Your task to perform on an android device: turn on airplane mode Image 0: 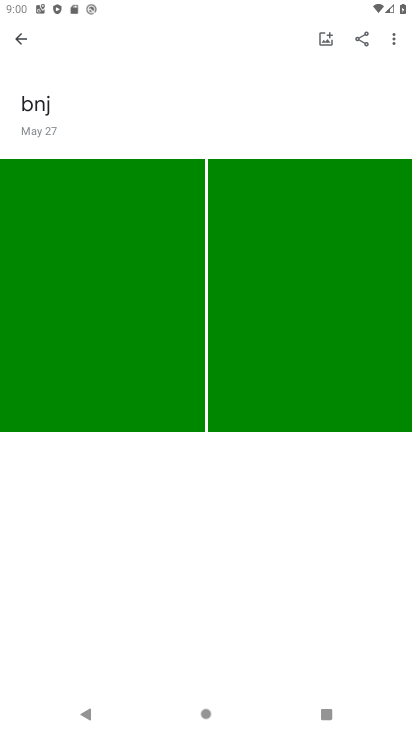
Step 0: press home button
Your task to perform on an android device: turn on airplane mode Image 1: 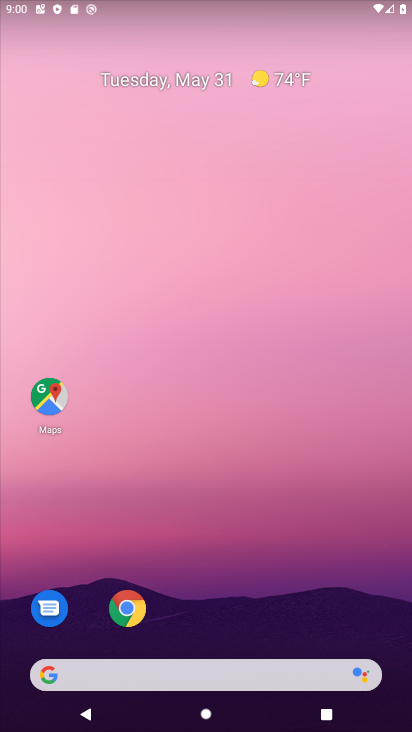
Step 1: drag from (178, 649) to (232, 126)
Your task to perform on an android device: turn on airplane mode Image 2: 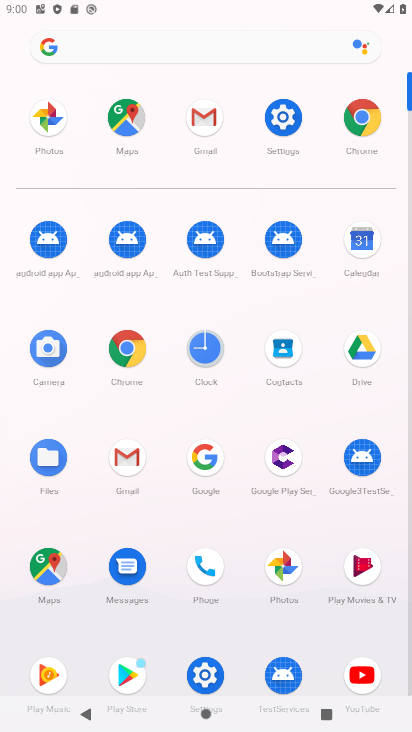
Step 2: click (279, 115)
Your task to perform on an android device: turn on airplane mode Image 3: 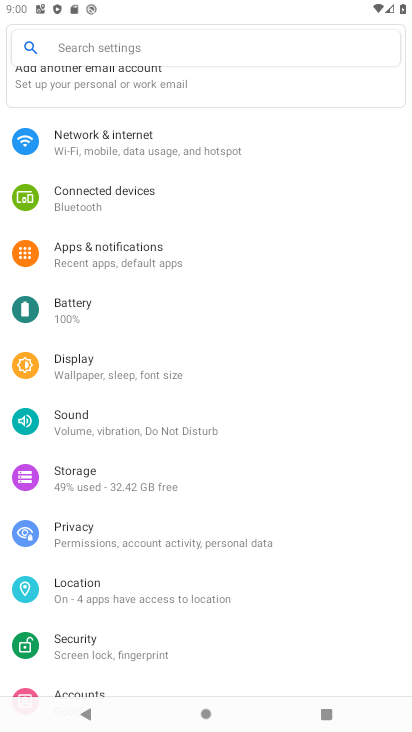
Step 3: click (196, 136)
Your task to perform on an android device: turn on airplane mode Image 4: 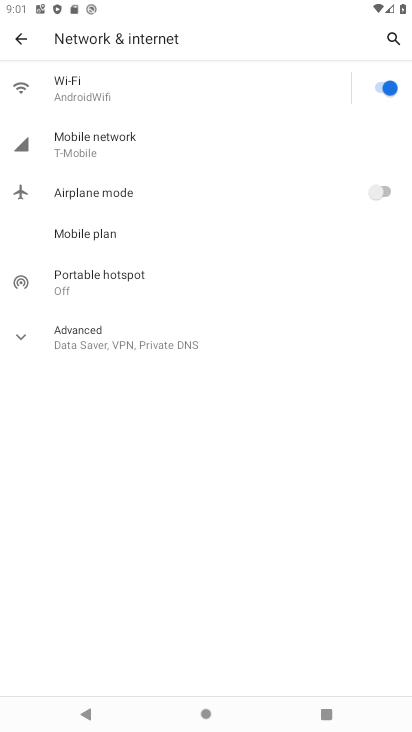
Step 4: click (390, 191)
Your task to perform on an android device: turn on airplane mode Image 5: 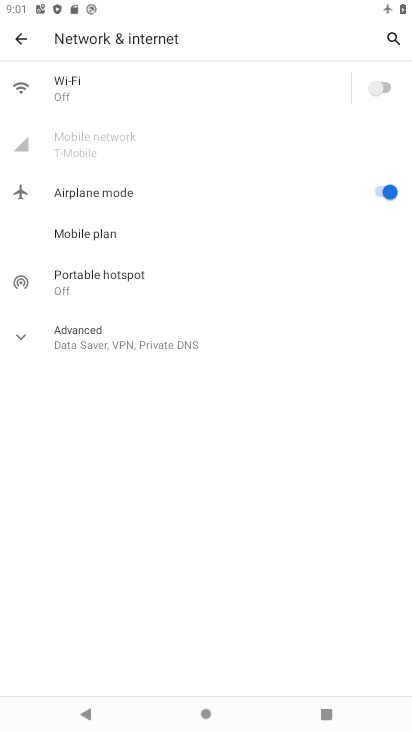
Step 5: task complete